Your task to perform on an android device: check android version Image 0: 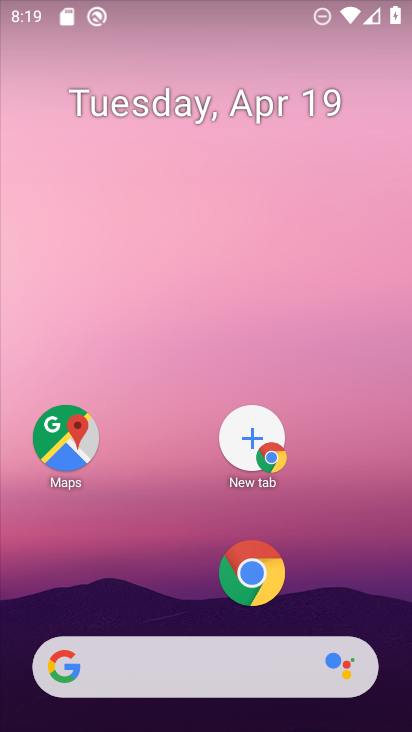
Step 0: drag from (148, 602) to (164, 23)
Your task to perform on an android device: check android version Image 1: 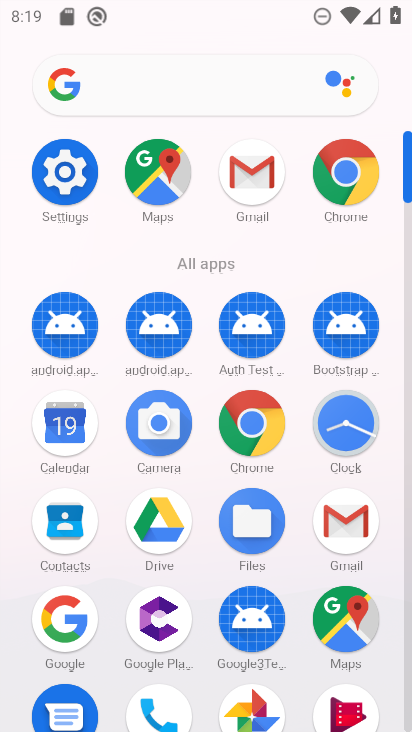
Step 1: click (72, 167)
Your task to perform on an android device: check android version Image 2: 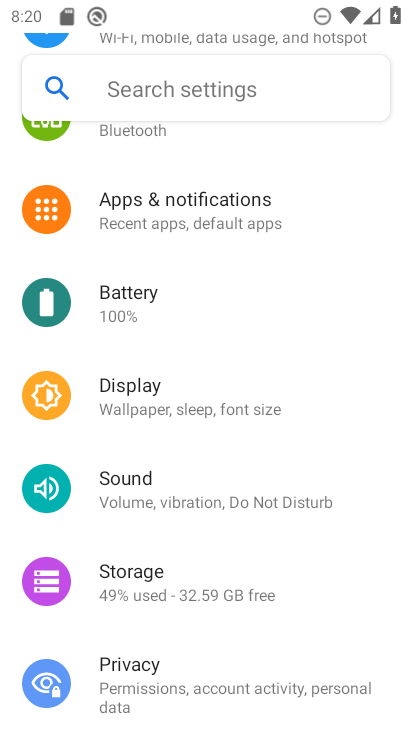
Step 2: drag from (201, 558) to (217, 222)
Your task to perform on an android device: check android version Image 3: 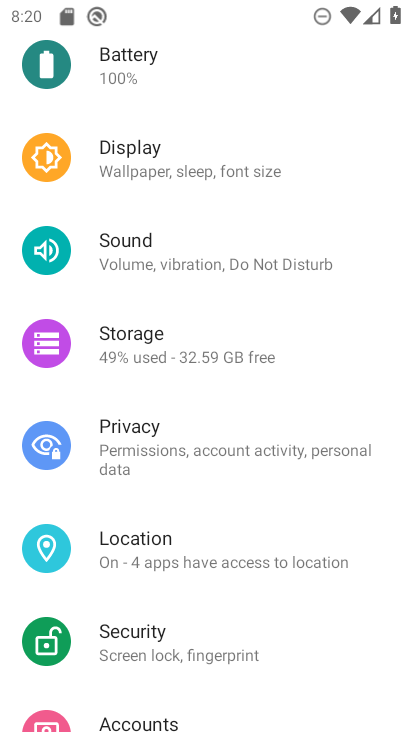
Step 3: drag from (126, 598) to (164, 101)
Your task to perform on an android device: check android version Image 4: 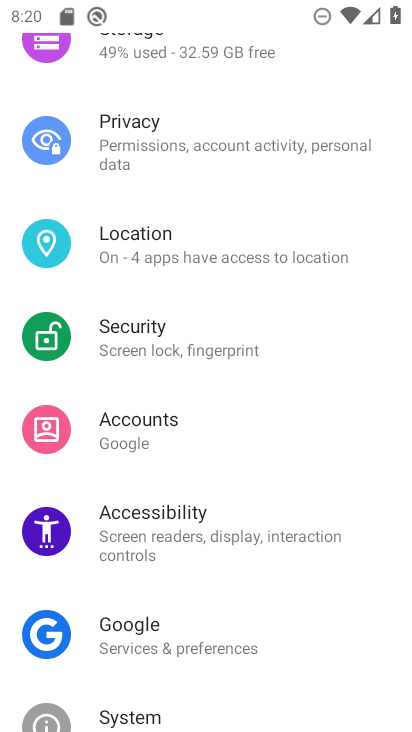
Step 4: drag from (234, 588) to (283, 58)
Your task to perform on an android device: check android version Image 5: 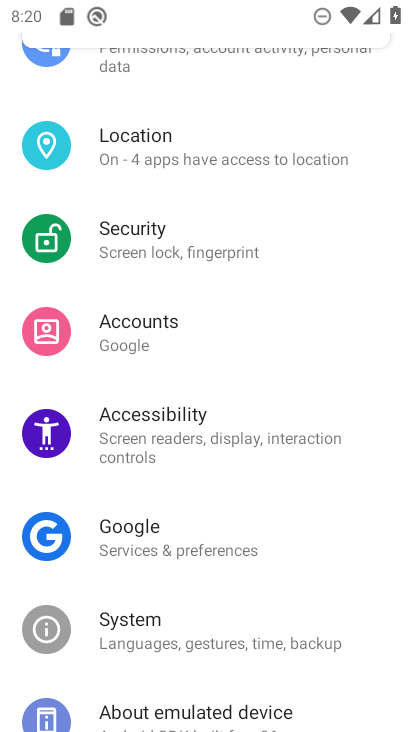
Step 5: drag from (238, 679) to (247, 155)
Your task to perform on an android device: check android version Image 6: 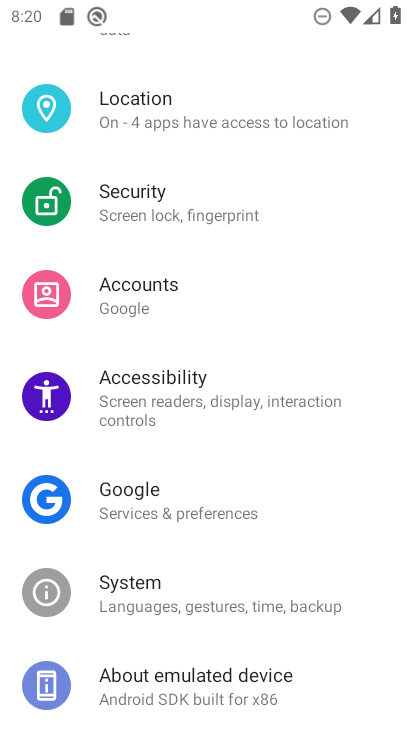
Step 6: click (186, 694)
Your task to perform on an android device: check android version Image 7: 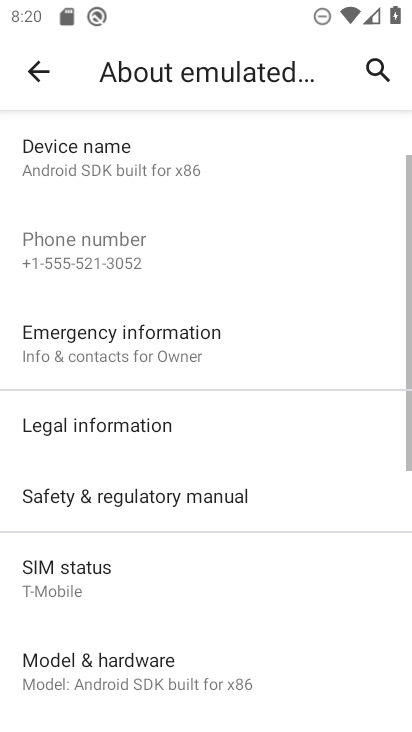
Step 7: drag from (200, 620) to (251, 5)
Your task to perform on an android device: check android version Image 8: 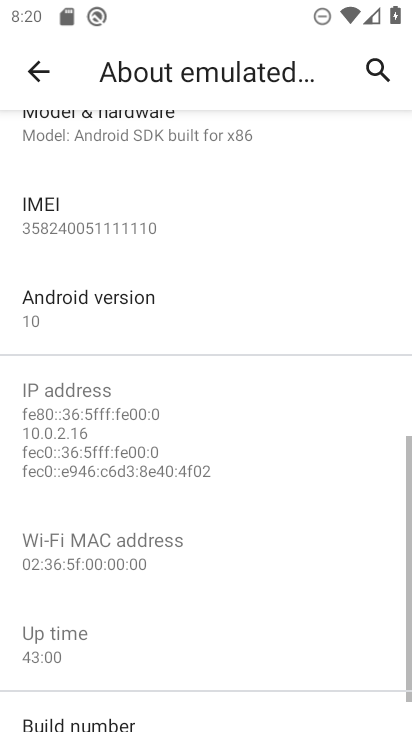
Step 8: click (88, 326)
Your task to perform on an android device: check android version Image 9: 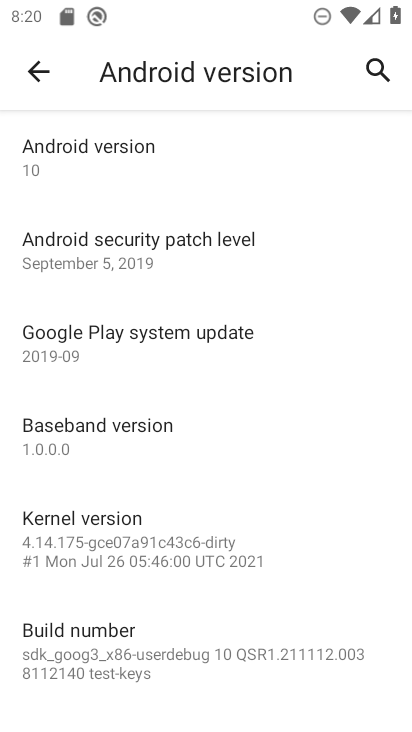
Step 9: task complete